Your task to perform on an android device: set an alarm Image 0: 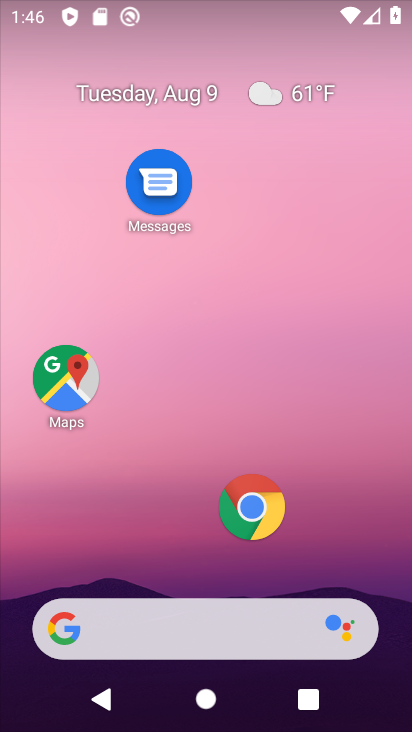
Step 0: drag from (155, 485) to (53, 84)
Your task to perform on an android device: set an alarm Image 1: 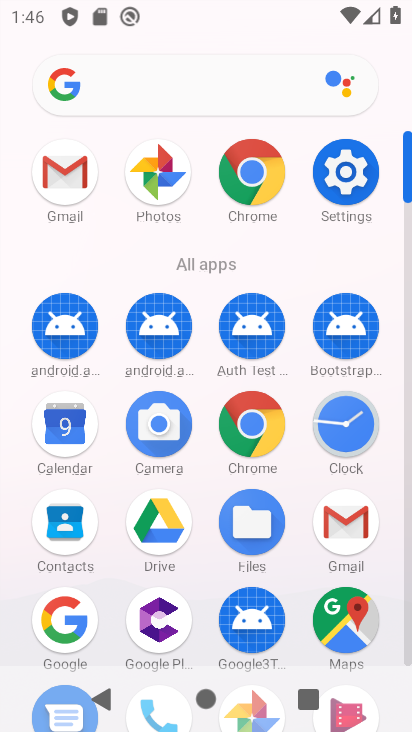
Step 1: click (333, 427)
Your task to perform on an android device: set an alarm Image 2: 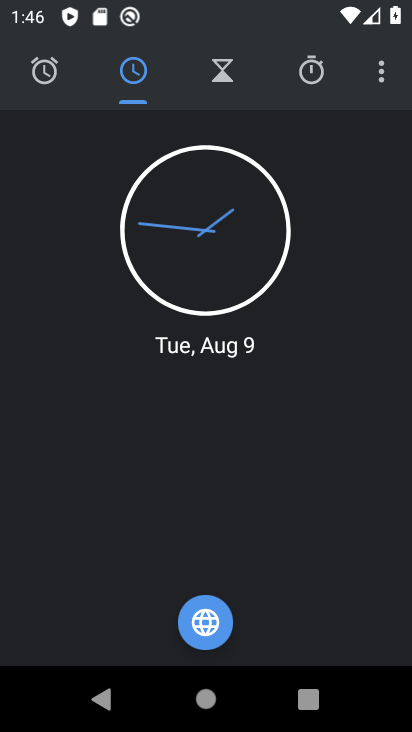
Step 2: click (42, 75)
Your task to perform on an android device: set an alarm Image 3: 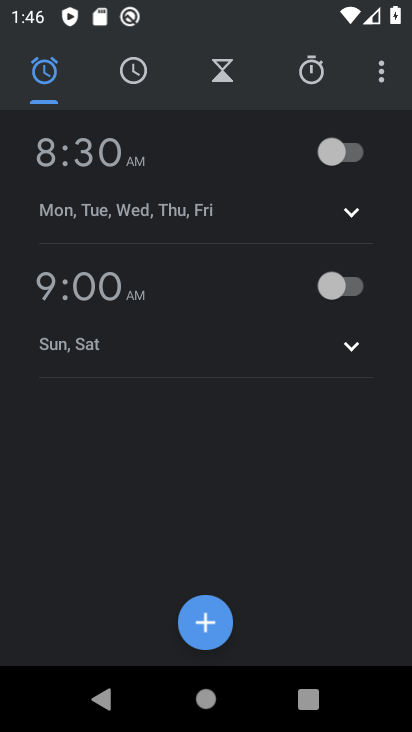
Step 3: click (345, 153)
Your task to perform on an android device: set an alarm Image 4: 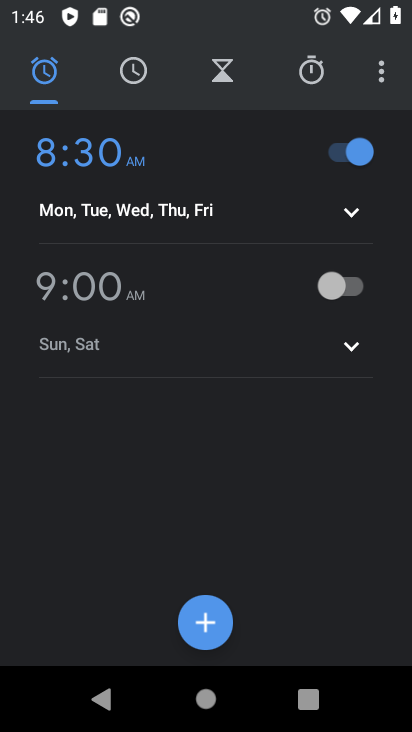
Step 4: task complete